Your task to perform on an android device: Go to accessibility settings Image 0: 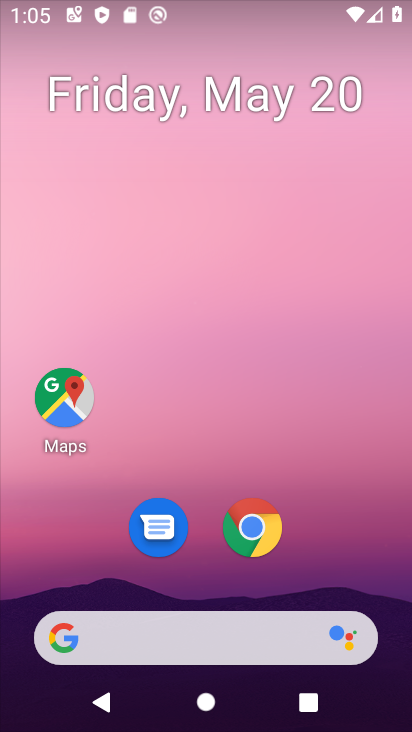
Step 0: press home button
Your task to perform on an android device: Go to accessibility settings Image 1: 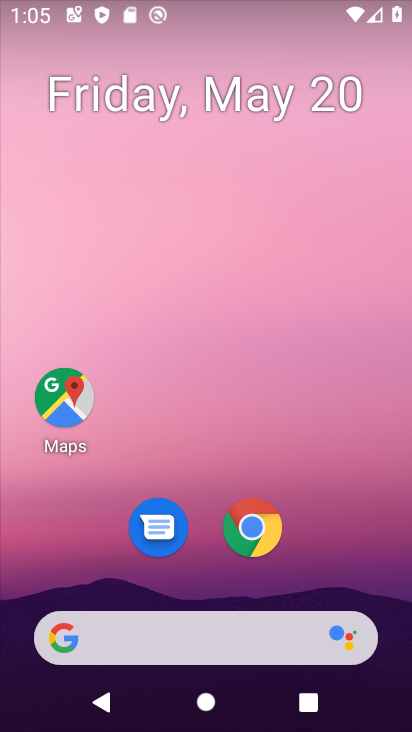
Step 1: drag from (177, 644) to (273, 115)
Your task to perform on an android device: Go to accessibility settings Image 2: 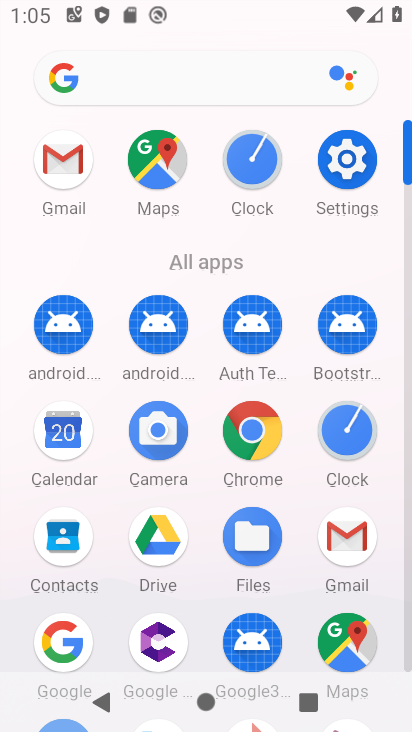
Step 2: click (354, 170)
Your task to perform on an android device: Go to accessibility settings Image 3: 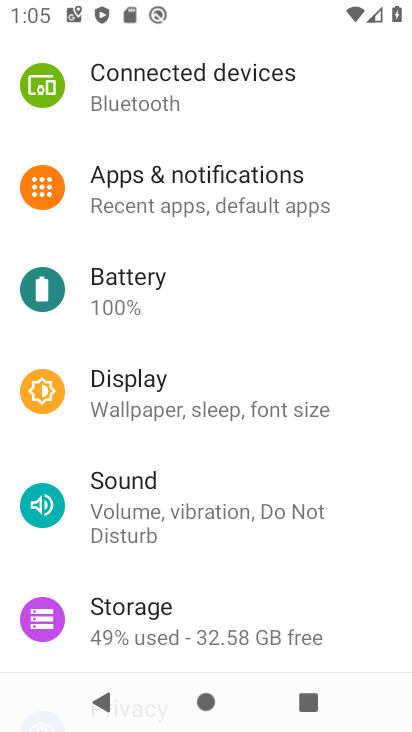
Step 3: drag from (262, 570) to (272, 94)
Your task to perform on an android device: Go to accessibility settings Image 4: 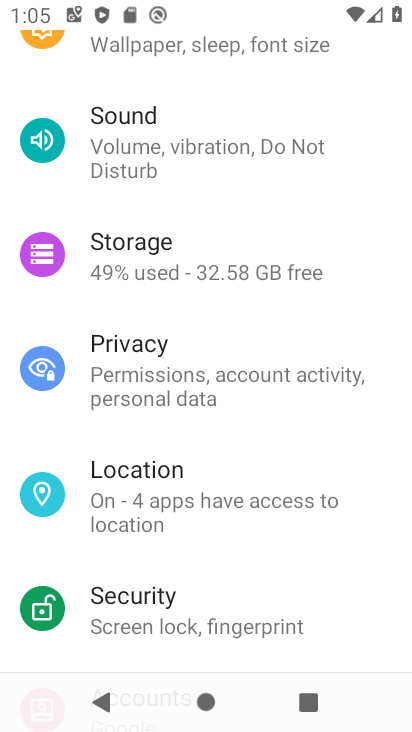
Step 4: drag from (243, 592) to (271, 99)
Your task to perform on an android device: Go to accessibility settings Image 5: 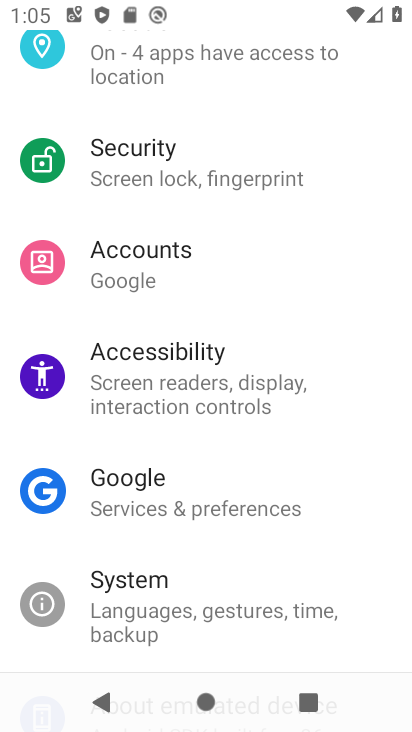
Step 5: click (151, 378)
Your task to perform on an android device: Go to accessibility settings Image 6: 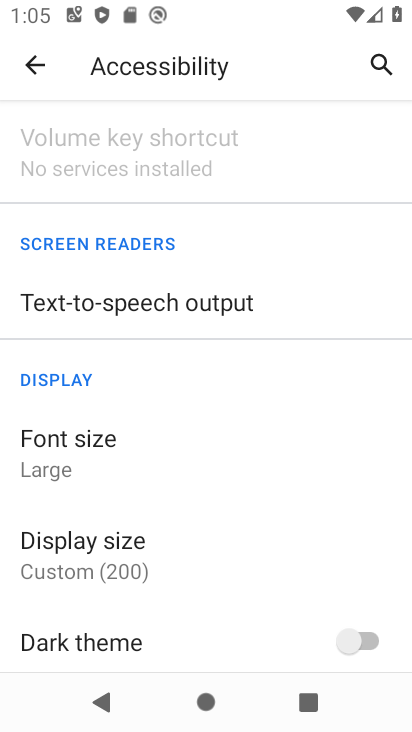
Step 6: task complete